Your task to perform on an android device: Go to battery settings Image 0: 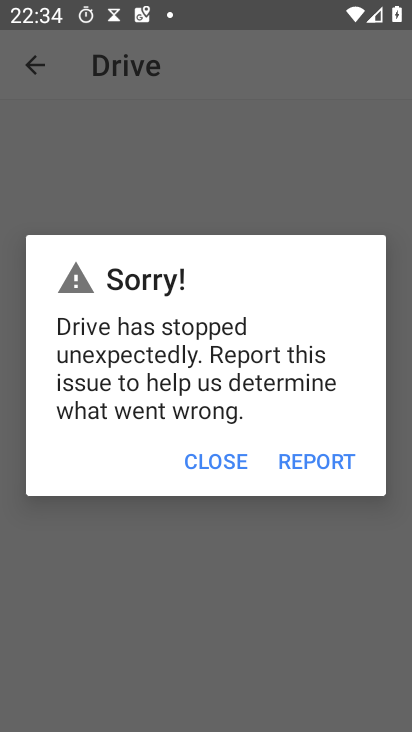
Step 0: press home button
Your task to perform on an android device: Go to battery settings Image 1: 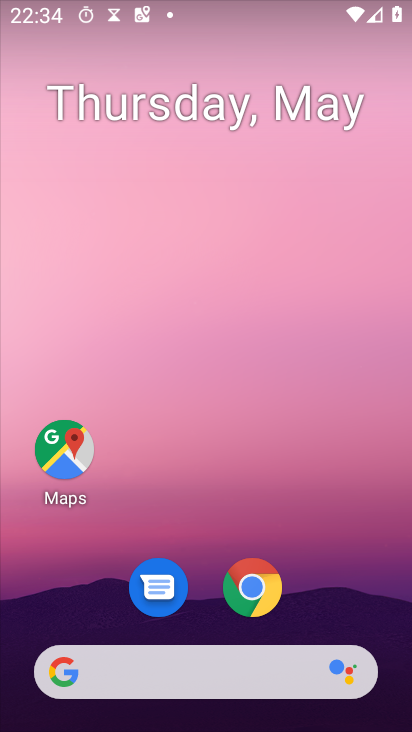
Step 1: drag from (356, 568) to (307, 22)
Your task to perform on an android device: Go to battery settings Image 2: 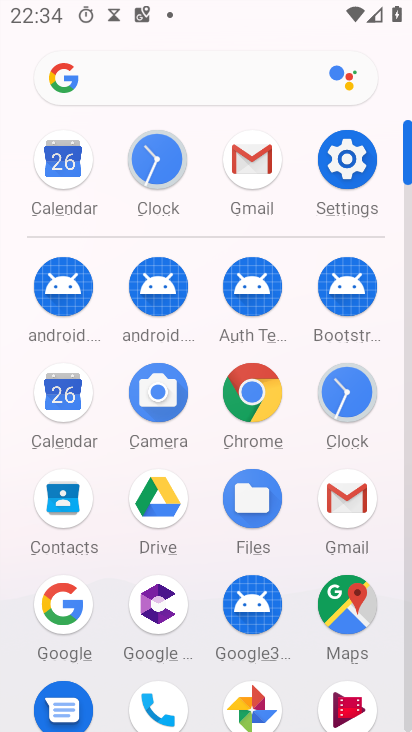
Step 2: click (352, 156)
Your task to perform on an android device: Go to battery settings Image 3: 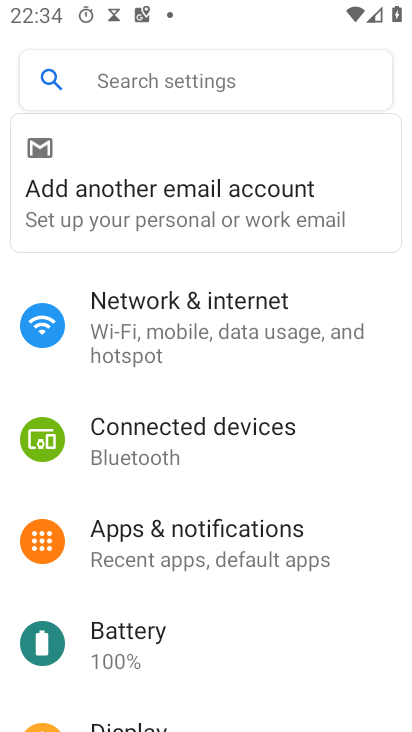
Step 3: drag from (309, 585) to (295, 147)
Your task to perform on an android device: Go to battery settings Image 4: 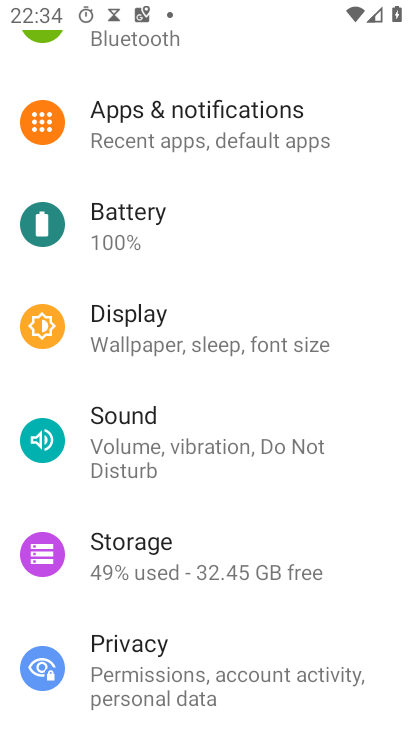
Step 4: drag from (266, 502) to (289, 568)
Your task to perform on an android device: Go to battery settings Image 5: 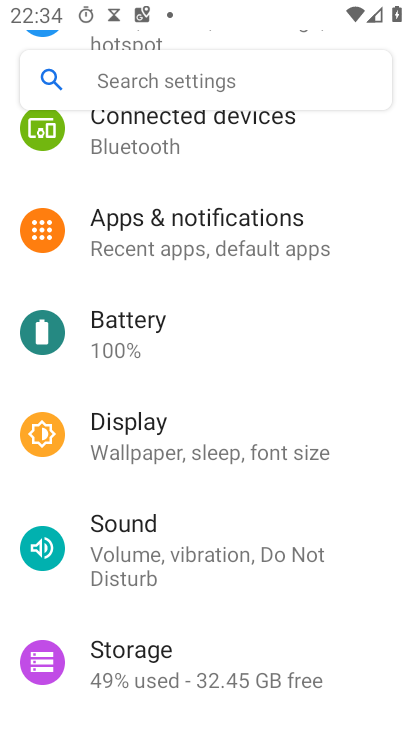
Step 5: click (112, 351)
Your task to perform on an android device: Go to battery settings Image 6: 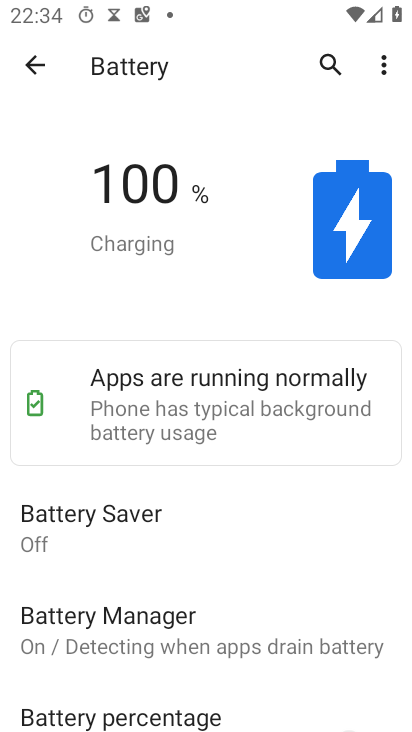
Step 6: task complete